Your task to perform on an android device: open a bookmark in the chrome app Image 0: 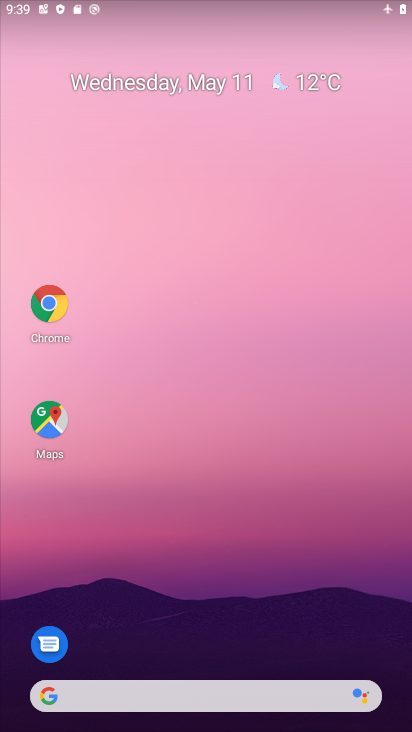
Step 0: click (57, 298)
Your task to perform on an android device: open a bookmark in the chrome app Image 1: 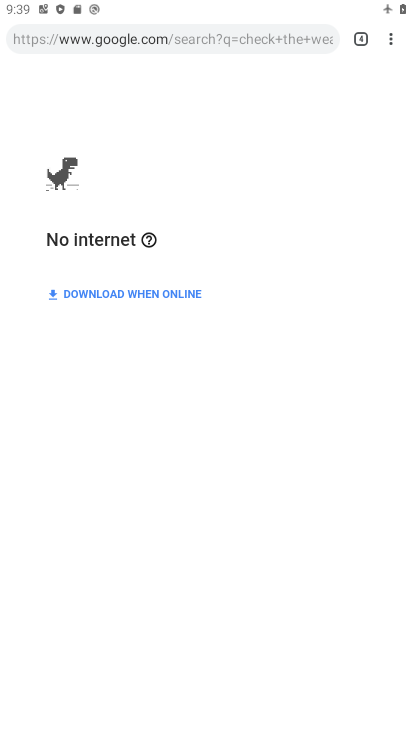
Step 1: click (395, 35)
Your task to perform on an android device: open a bookmark in the chrome app Image 2: 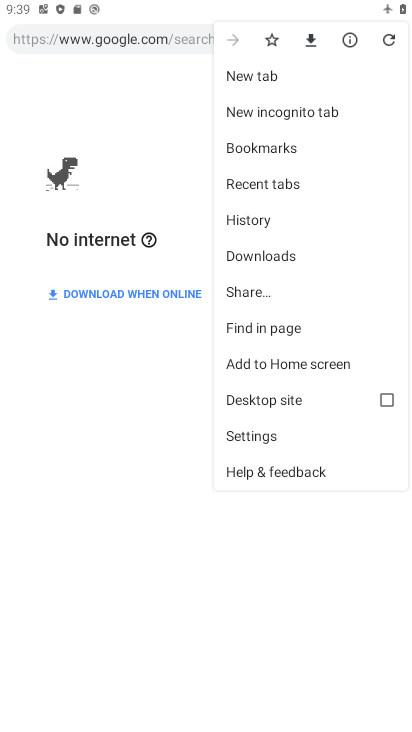
Step 2: click (279, 145)
Your task to perform on an android device: open a bookmark in the chrome app Image 3: 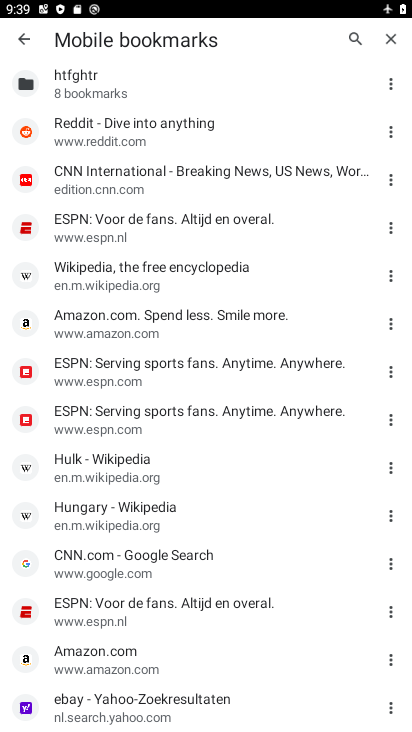
Step 3: task complete